Your task to perform on an android device: Show me productivity apps on the Play Store Image 0: 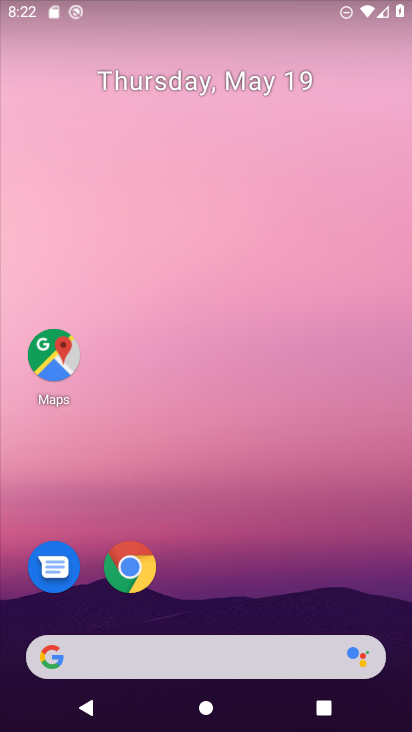
Step 0: drag from (196, 603) to (183, 237)
Your task to perform on an android device: Show me productivity apps on the Play Store Image 1: 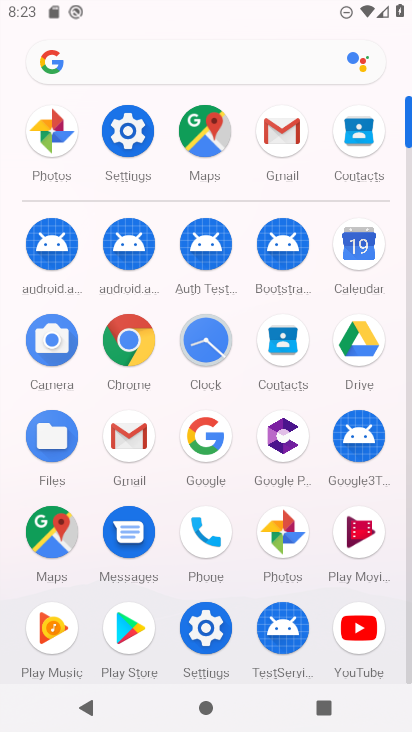
Step 1: click (134, 622)
Your task to perform on an android device: Show me productivity apps on the Play Store Image 2: 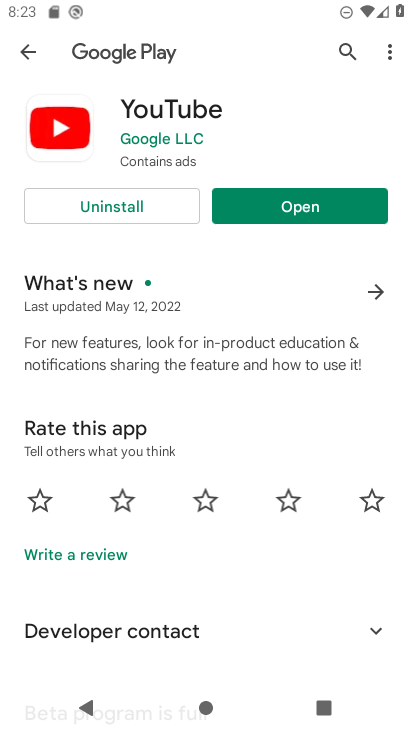
Step 2: click (30, 44)
Your task to perform on an android device: Show me productivity apps on the Play Store Image 3: 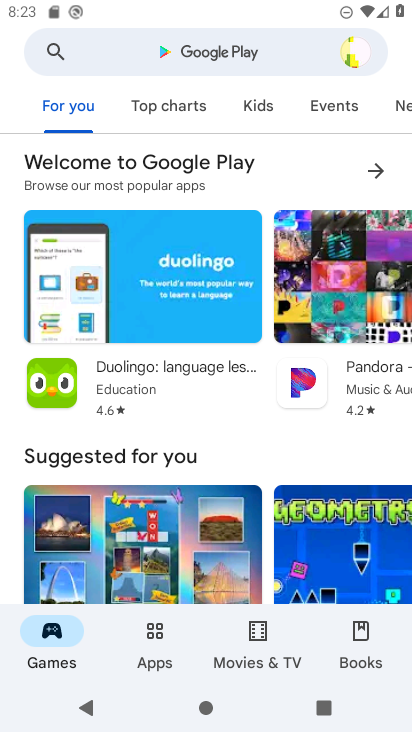
Step 3: click (159, 639)
Your task to perform on an android device: Show me productivity apps on the Play Store Image 4: 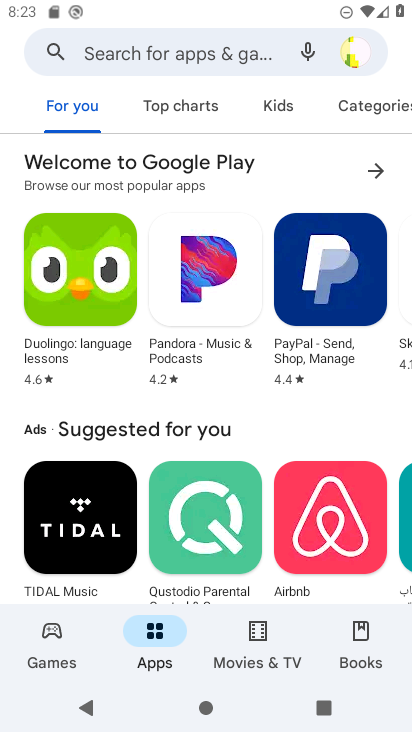
Step 4: click (367, 97)
Your task to perform on an android device: Show me productivity apps on the Play Store Image 5: 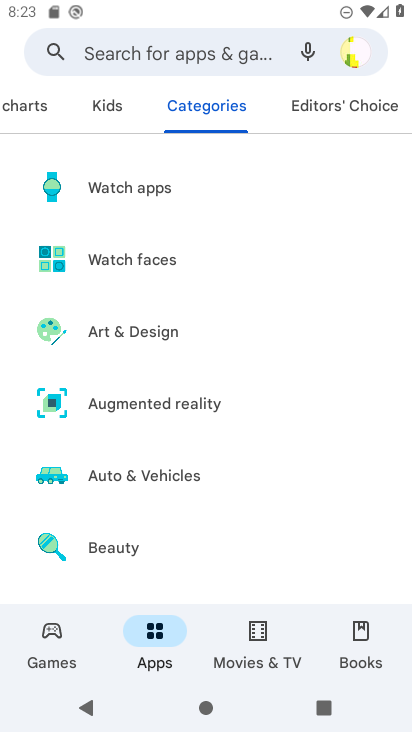
Step 5: drag from (127, 590) to (176, 142)
Your task to perform on an android device: Show me productivity apps on the Play Store Image 6: 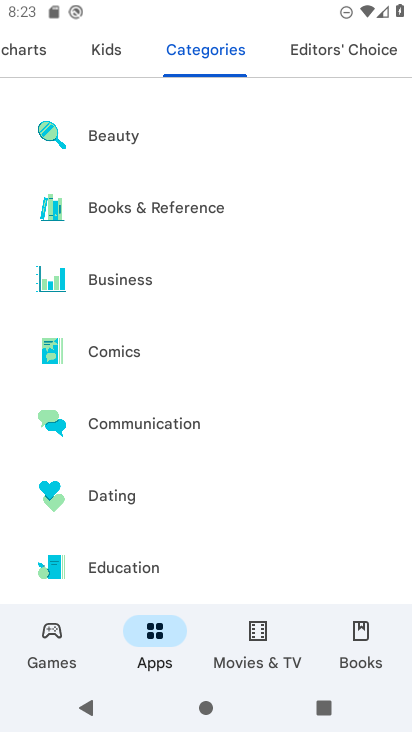
Step 6: drag from (61, 517) to (147, 129)
Your task to perform on an android device: Show me productivity apps on the Play Store Image 7: 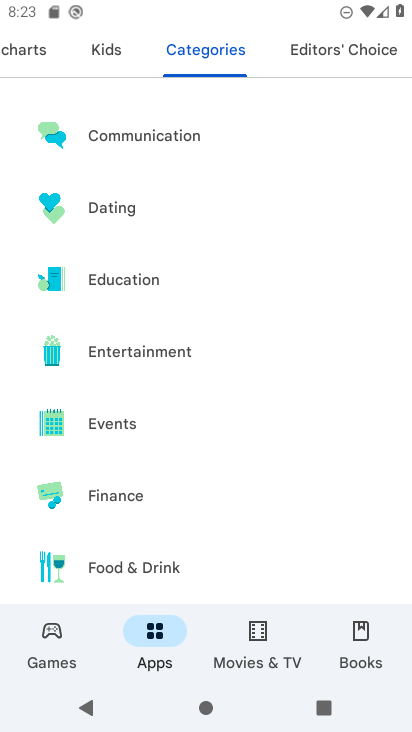
Step 7: drag from (106, 591) to (146, 167)
Your task to perform on an android device: Show me productivity apps on the Play Store Image 8: 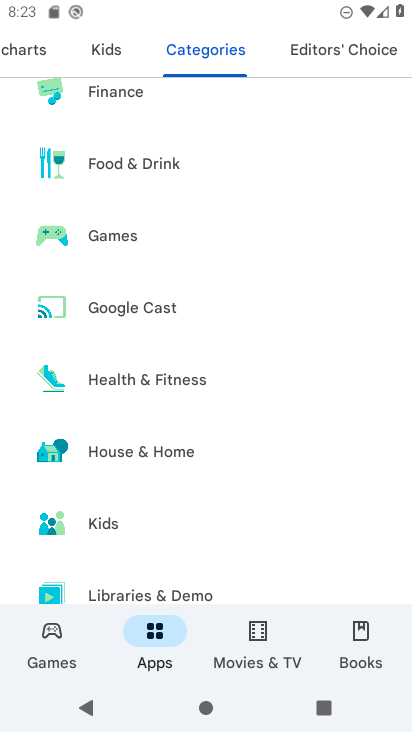
Step 8: drag from (103, 532) to (156, 226)
Your task to perform on an android device: Show me productivity apps on the Play Store Image 9: 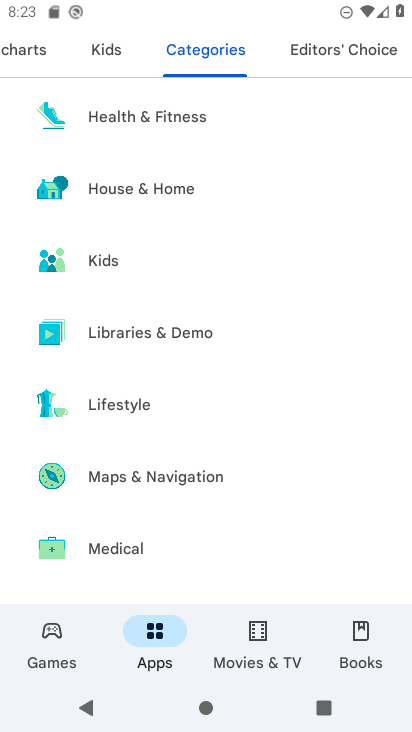
Step 9: drag from (127, 571) to (156, 201)
Your task to perform on an android device: Show me productivity apps on the Play Store Image 10: 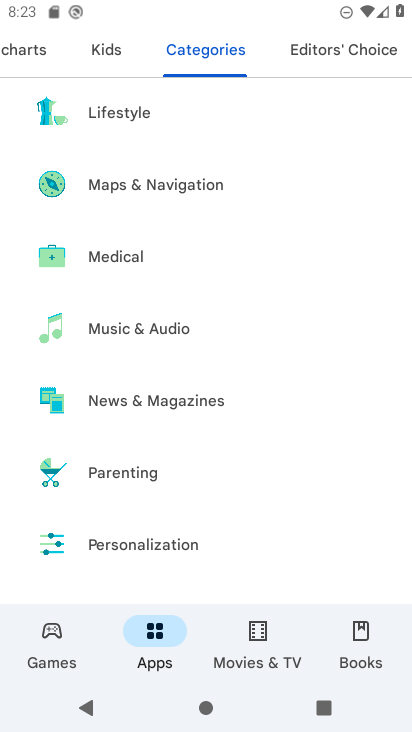
Step 10: drag from (115, 525) to (152, 95)
Your task to perform on an android device: Show me productivity apps on the Play Store Image 11: 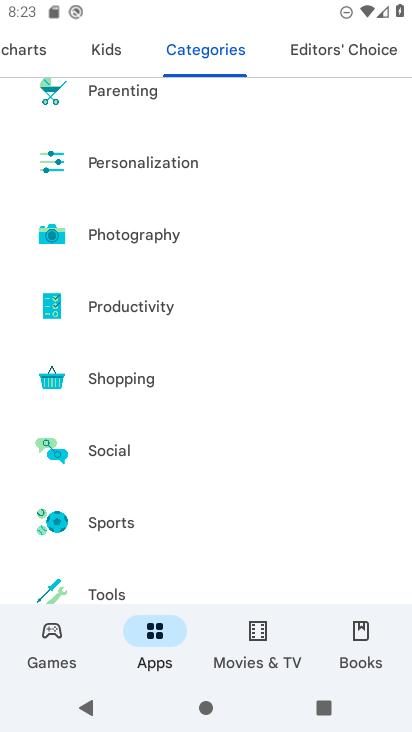
Step 11: click (109, 316)
Your task to perform on an android device: Show me productivity apps on the Play Store Image 12: 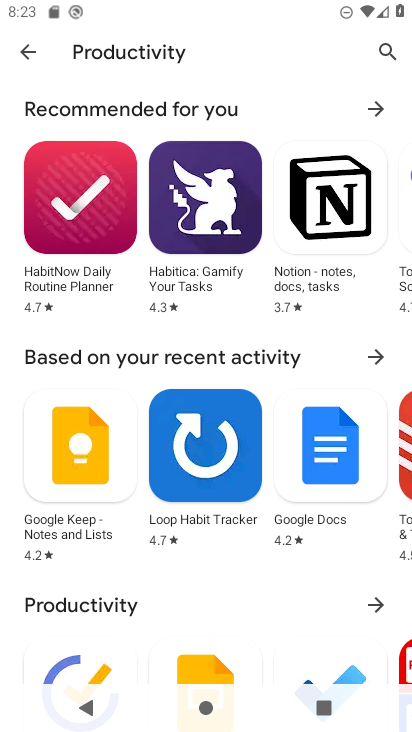
Step 12: click (368, 611)
Your task to perform on an android device: Show me productivity apps on the Play Store Image 13: 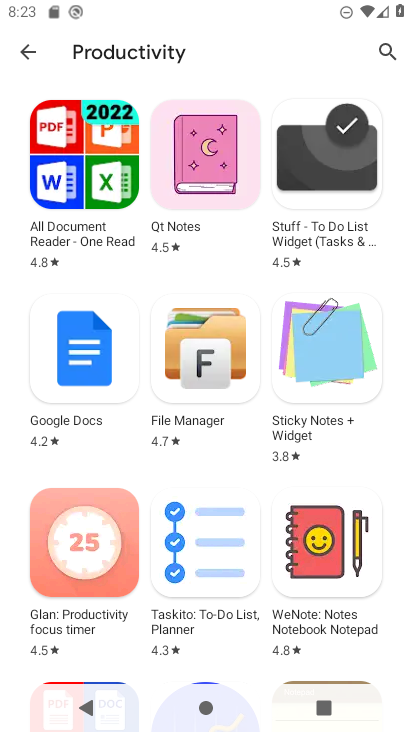
Step 13: task complete